Your task to perform on an android device: add a label to a message in the gmail app Image 0: 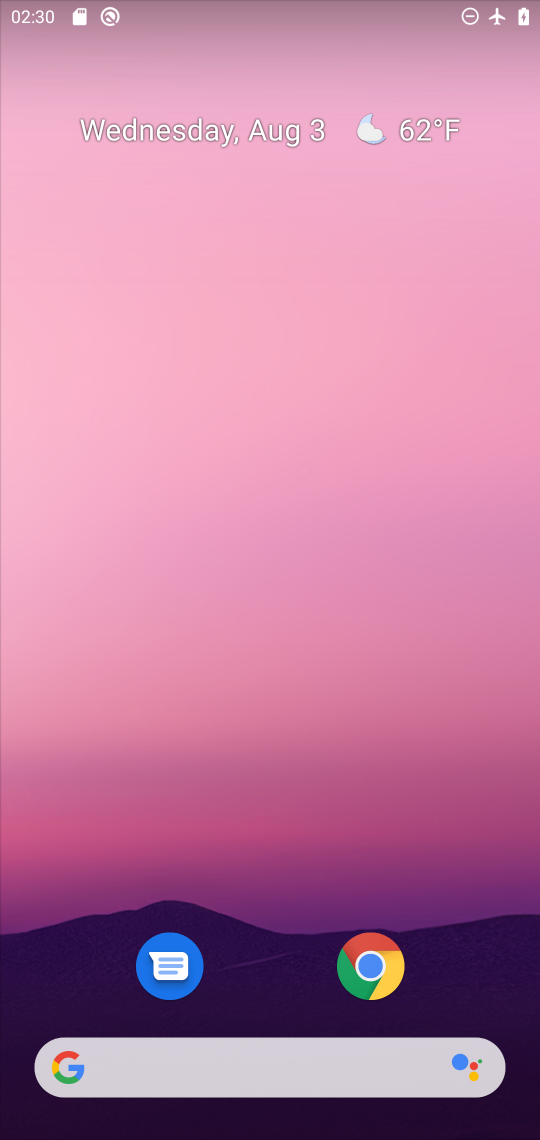
Step 0: drag from (295, 980) to (257, 430)
Your task to perform on an android device: add a label to a message in the gmail app Image 1: 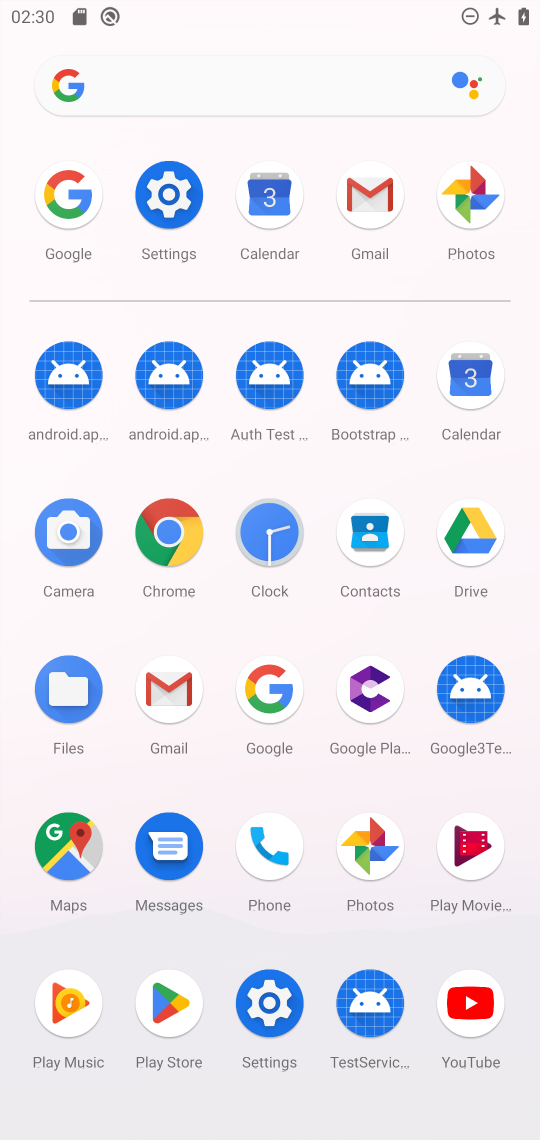
Step 1: click (364, 225)
Your task to perform on an android device: add a label to a message in the gmail app Image 2: 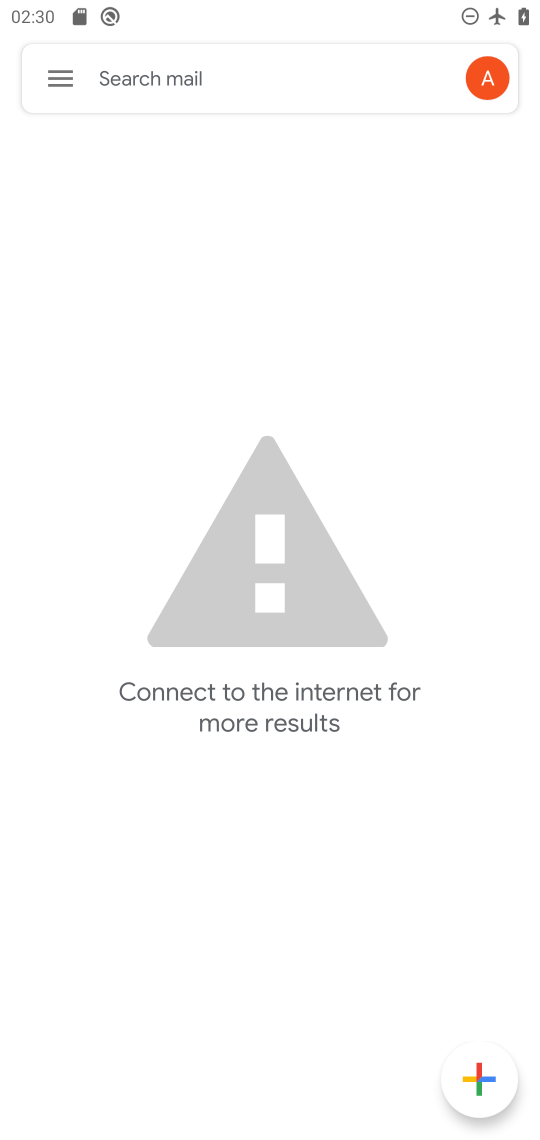
Step 2: click (57, 91)
Your task to perform on an android device: add a label to a message in the gmail app Image 3: 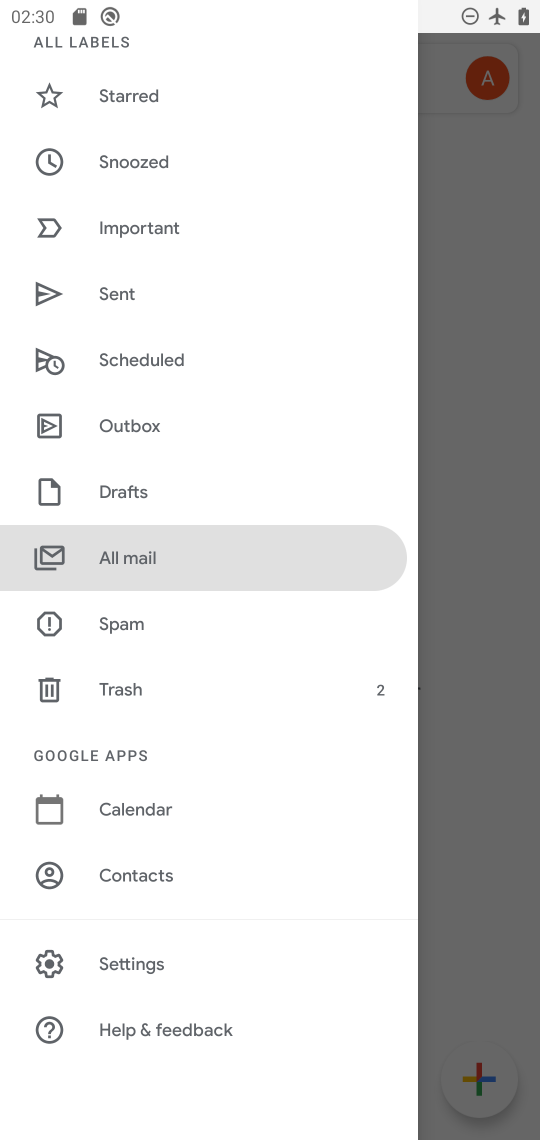
Step 3: click (159, 573)
Your task to perform on an android device: add a label to a message in the gmail app Image 4: 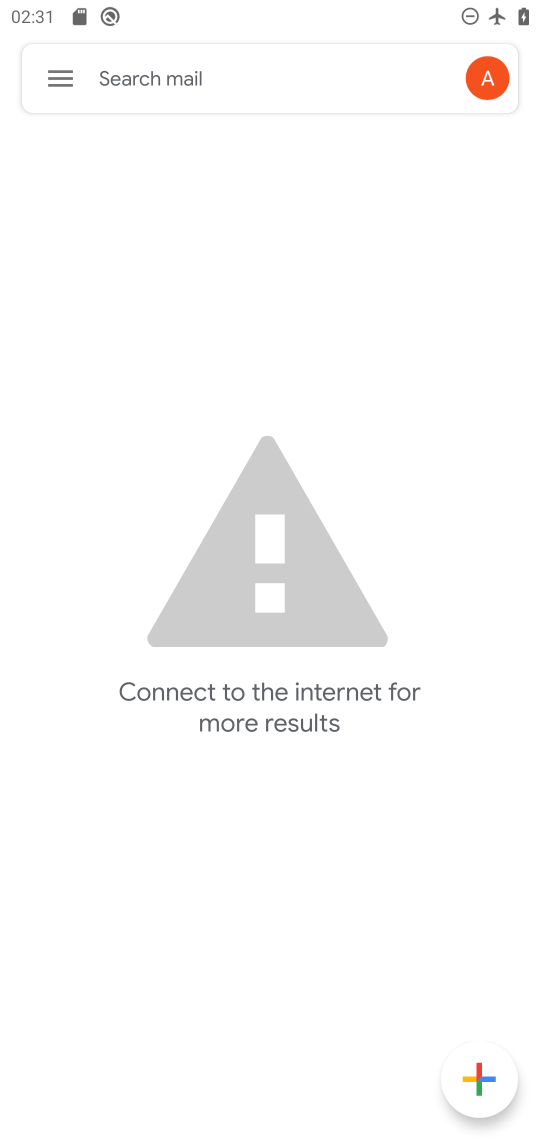
Step 4: task complete